Your task to perform on an android device: toggle data saver in the chrome app Image 0: 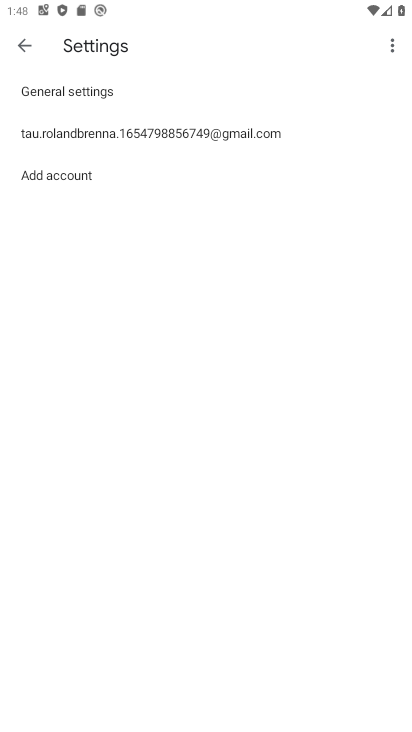
Step 0: press home button
Your task to perform on an android device: toggle data saver in the chrome app Image 1: 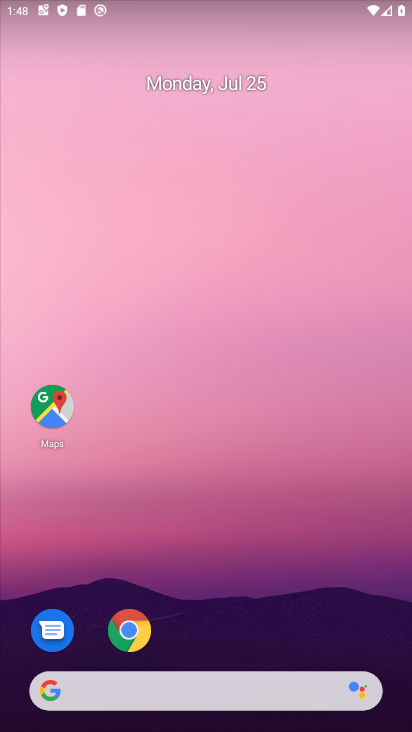
Step 1: click (154, 639)
Your task to perform on an android device: toggle data saver in the chrome app Image 2: 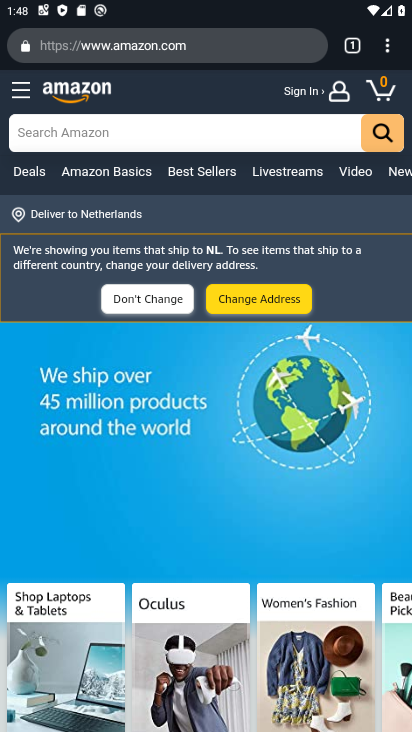
Step 2: click (381, 42)
Your task to perform on an android device: toggle data saver in the chrome app Image 3: 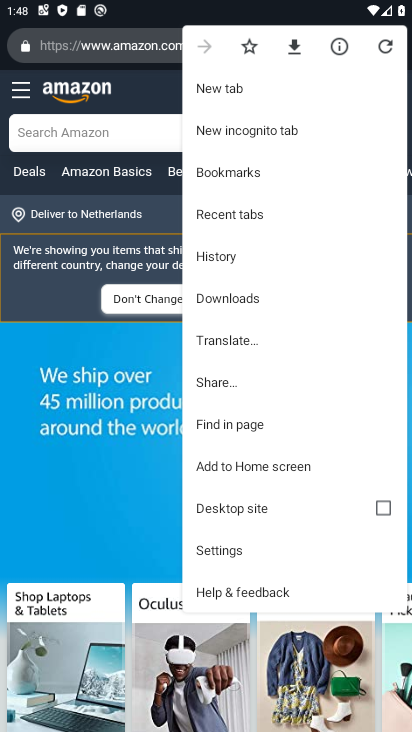
Step 3: click (246, 554)
Your task to perform on an android device: toggle data saver in the chrome app Image 4: 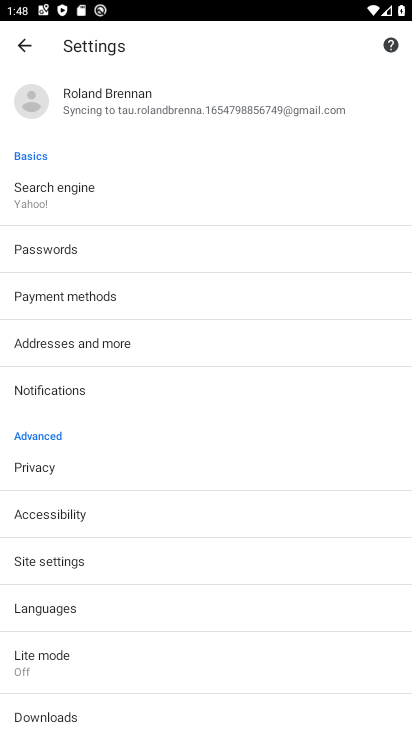
Step 4: click (152, 655)
Your task to perform on an android device: toggle data saver in the chrome app Image 5: 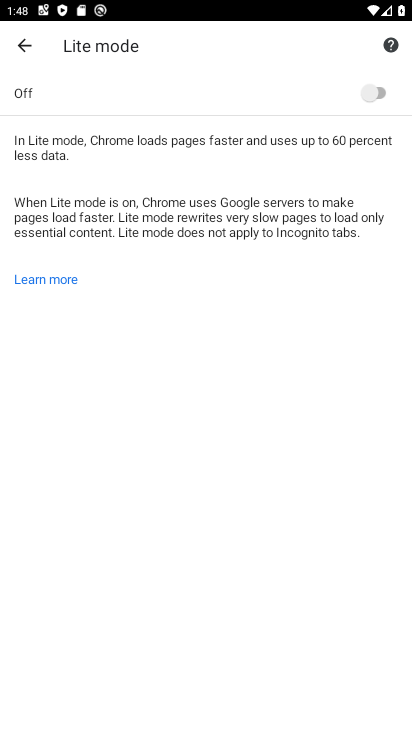
Step 5: click (369, 88)
Your task to perform on an android device: toggle data saver in the chrome app Image 6: 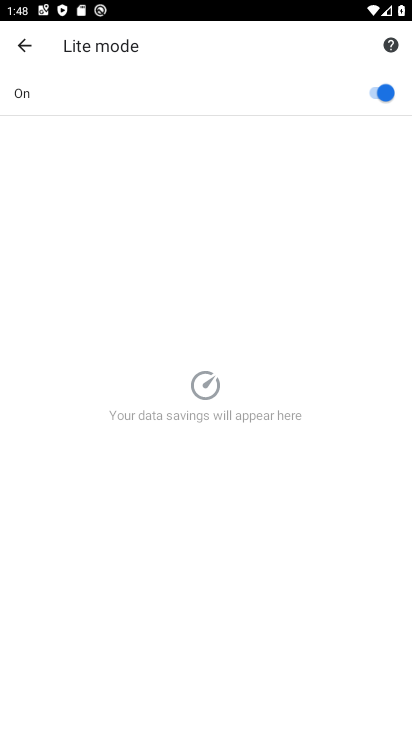
Step 6: task complete